Your task to perform on an android device: empty trash in google photos Image 0: 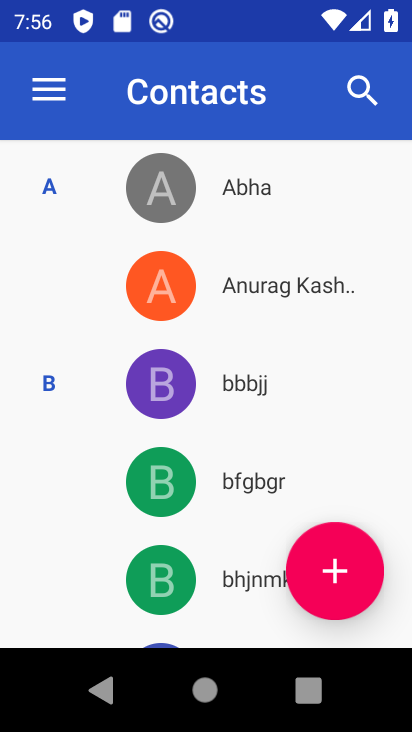
Step 0: press home button
Your task to perform on an android device: empty trash in google photos Image 1: 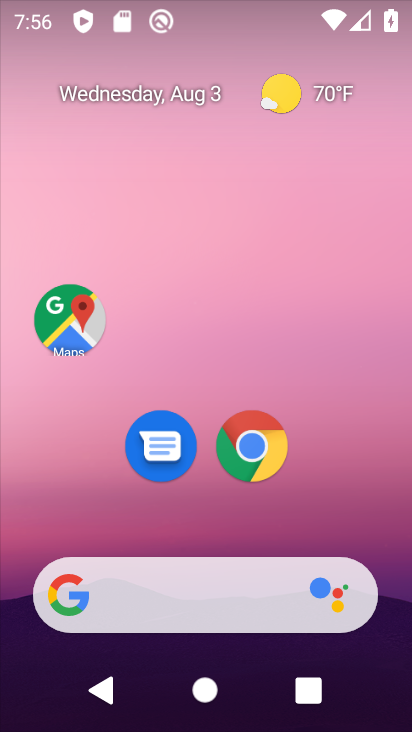
Step 1: drag from (371, 690) to (221, 93)
Your task to perform on an android device: empty trash in google photos Image 2: 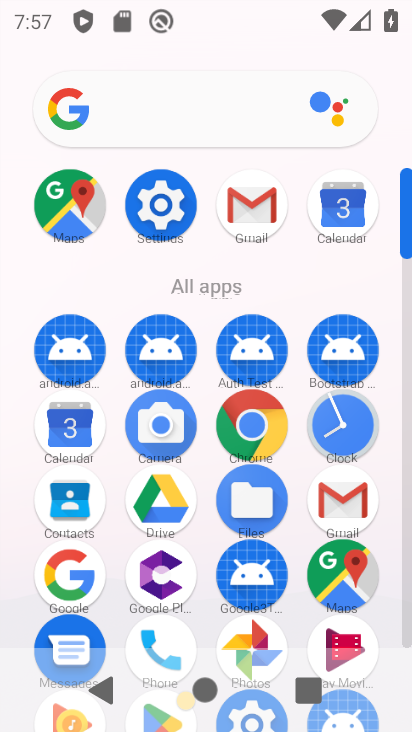
Step 2: click (247, 629)
Your task to perform on an android device: empty trash in google photos Image 3: 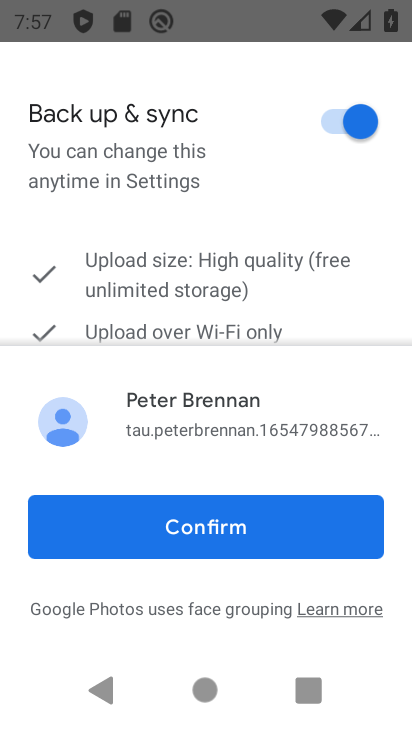
Step 3: click (226, 522)
Your task to perform on an android device: empty trash in google photos Image 4: 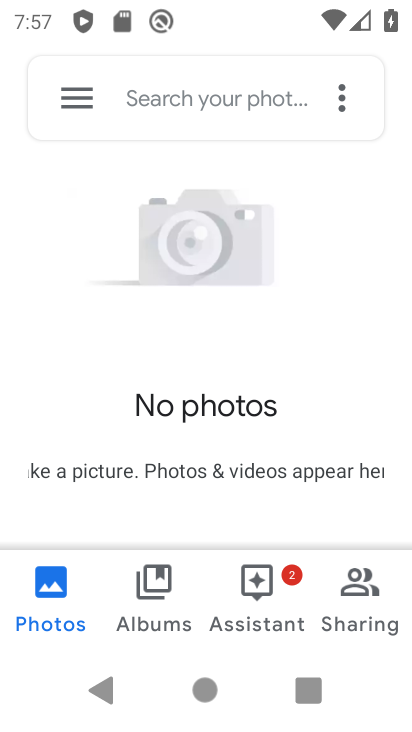
Step 4: click (73, 97)
Your task to perform on an android device: empty trash in google photos Image 5: 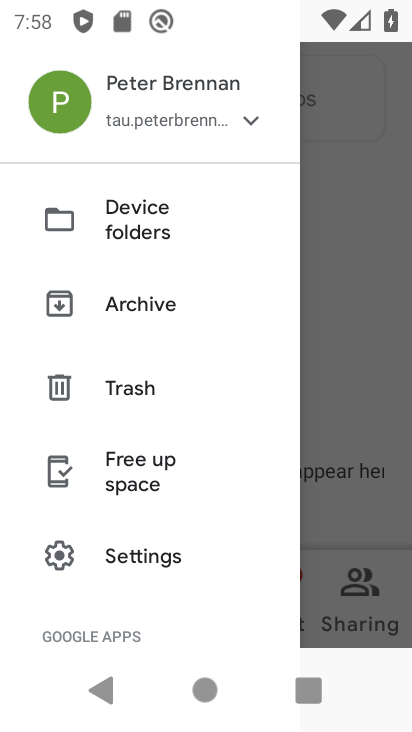
Step 5: click (62, 388)
Your task to perform on an android device: empty trash in google photos Image 6: 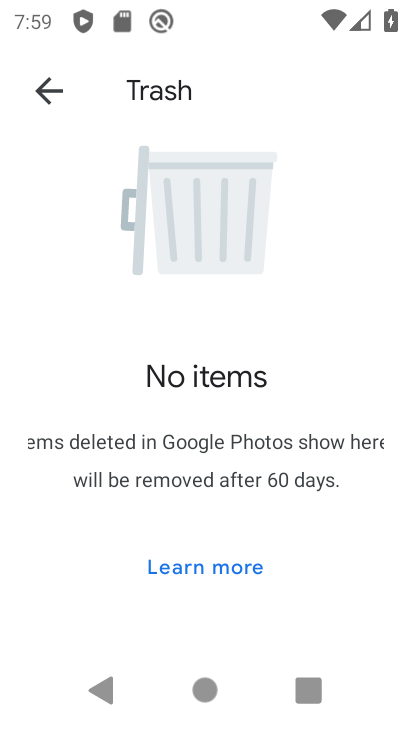
Step 6: task complete